Your task to perform on an android device: turn off wifi Image 0: 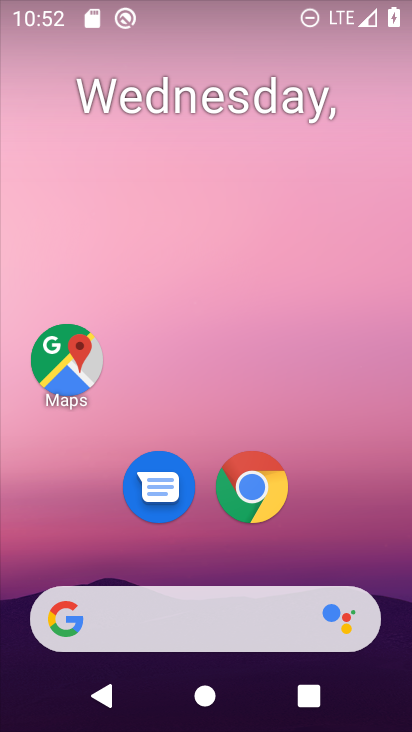
Step 0: drag from (334, 459) to (252, 25)
Your task to perform on an android device: turn off wifi Image 1: 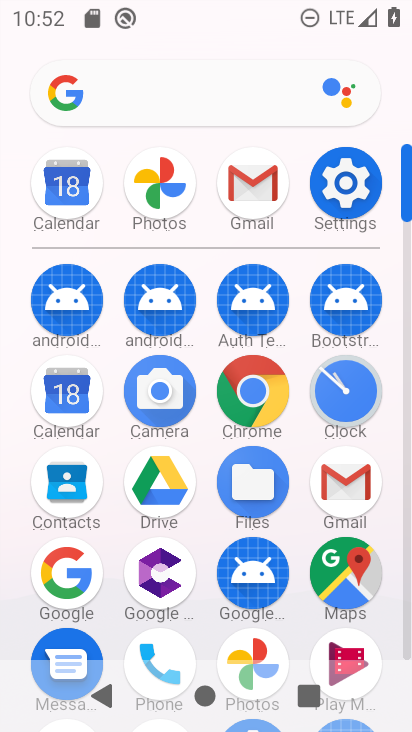
Step 1: click (339, 177)
Your task to perform on an android device: turn off wifi Image 2: 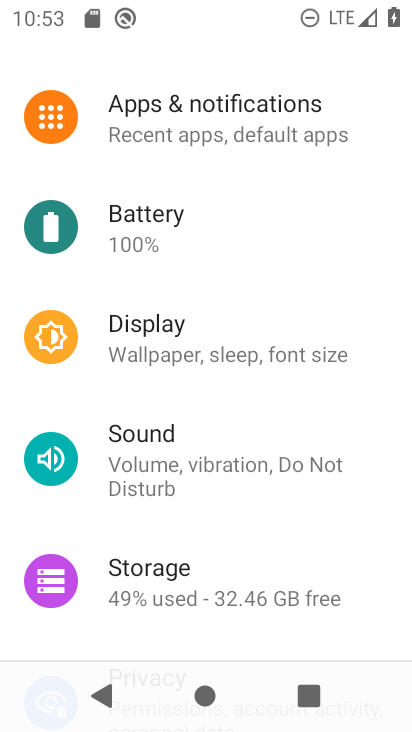
Step 2: drag from (230, 179) to (278, 643)
Your task to perform on an android device: turn off wifi Image 3: 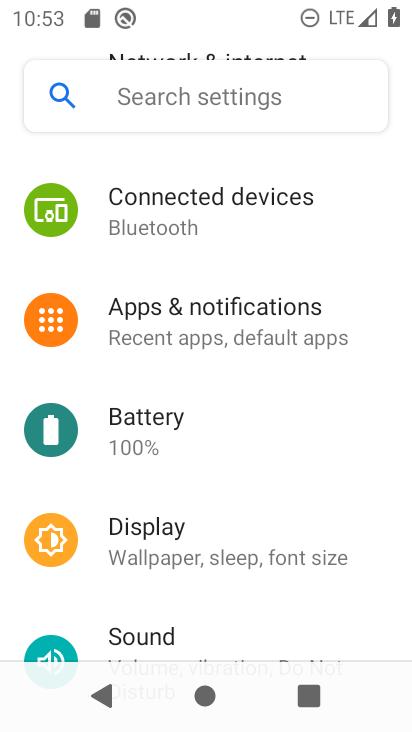
Step 3: drag from (187, 268) to (180, 722)
Your task to perform on an android device: turn off wifi Image 4: 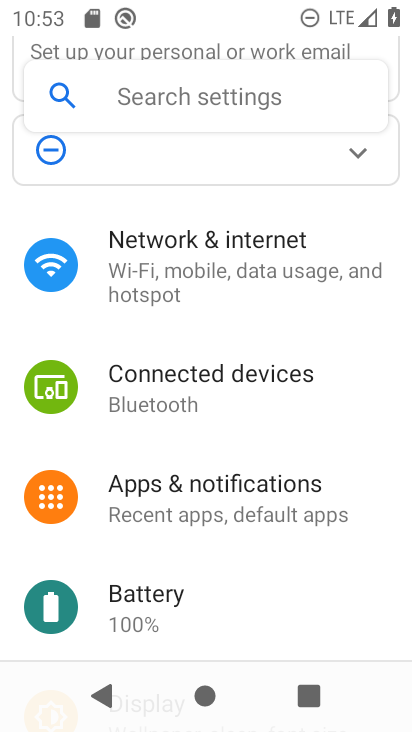
Step 4: click (166, 238)
Your task to perform on an android device: turn off wifi Image 5: 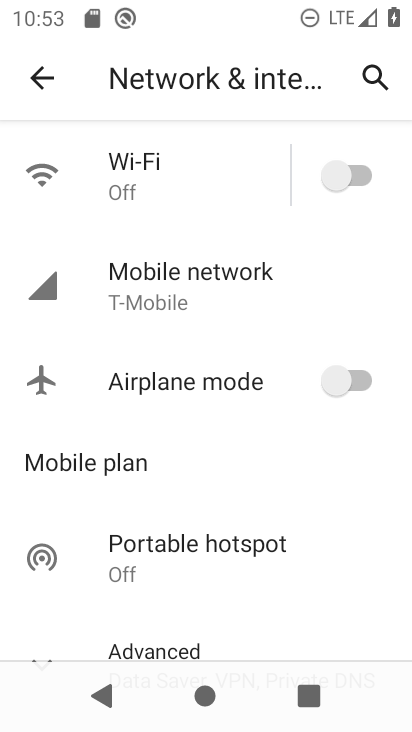
Step 5: task complete